Your task to perform on an android device: manage bookmarks in the chrome app Image 0: 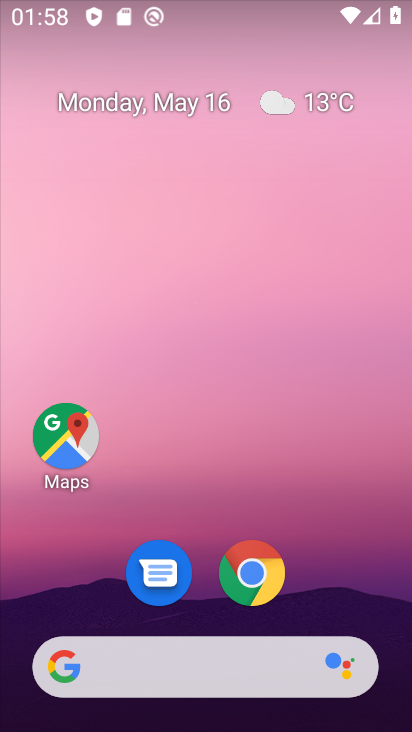
Step 0: click (264, 590)
Your task to perform on an android device: manage bookmarks in the chrome app Image 1: 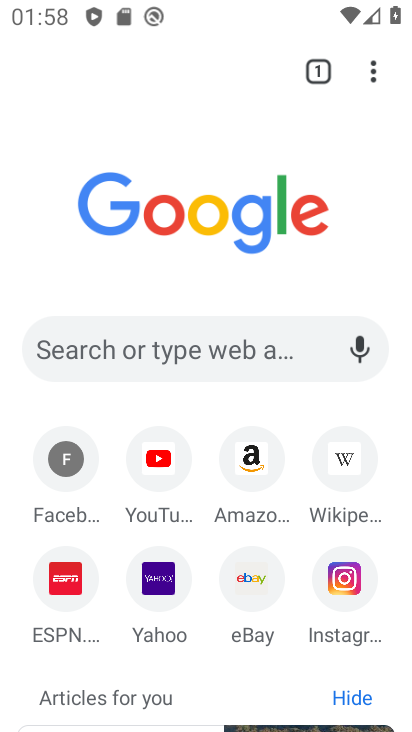
Step 1: click (386, 66)
Your task to perform on an android device: manage bookmarks in the chrome app Image 2: 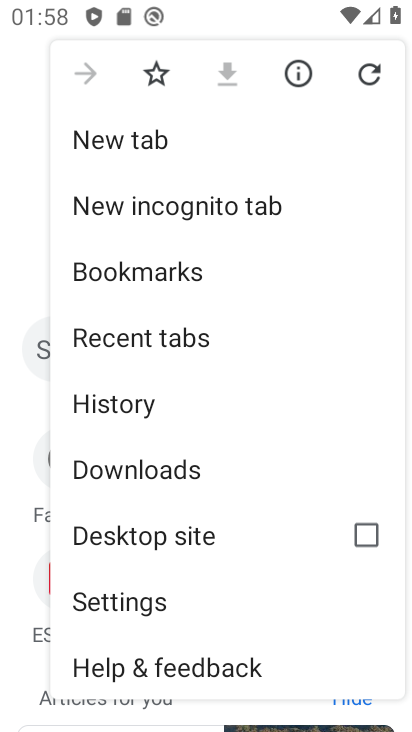
Step 2: click (111, 607)
Your task to perform on an android device: manage bookmarks in the chrome app Image 3: 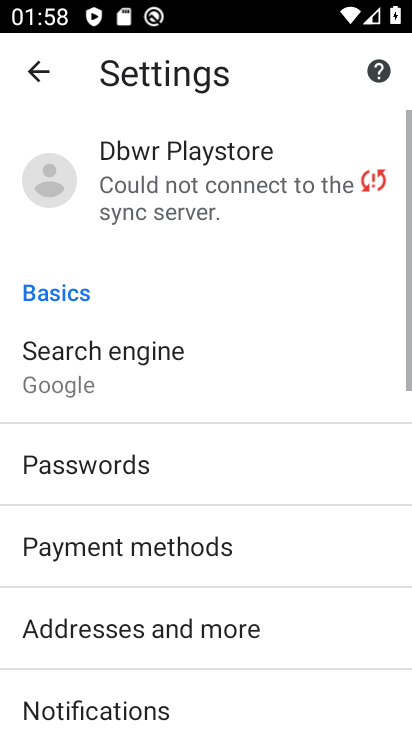
Step 3: drag from (111, 607) to (150, 300)
Your task to perform on an android device: manage bookmarks in the chrome app Image 4: 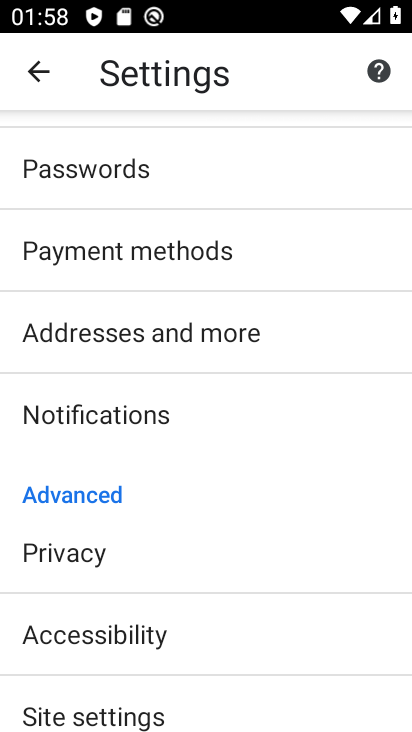
Step 4: drag from (167, 176) to (79, 625)
Your task to perform on an android device: manage bookmarks in the chrome app Image 5: 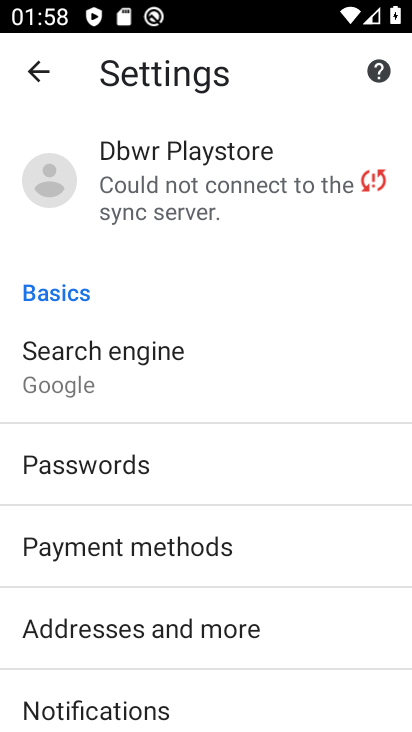
Step 5: drag from (79, 601) to (98, 386)
Your task to perform on an android device: manage bookmarks in the chrome app Image 6: 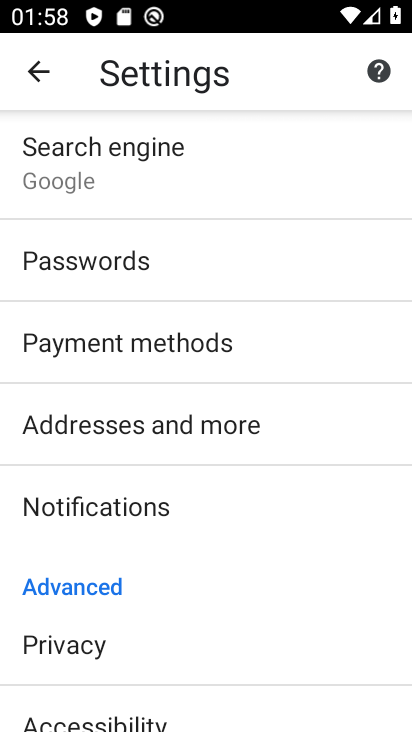
Step 6: drag from (235, 656) to (266, 268)
Your task to perform on an android device: manage bookmarks in the chrome app Image 7: 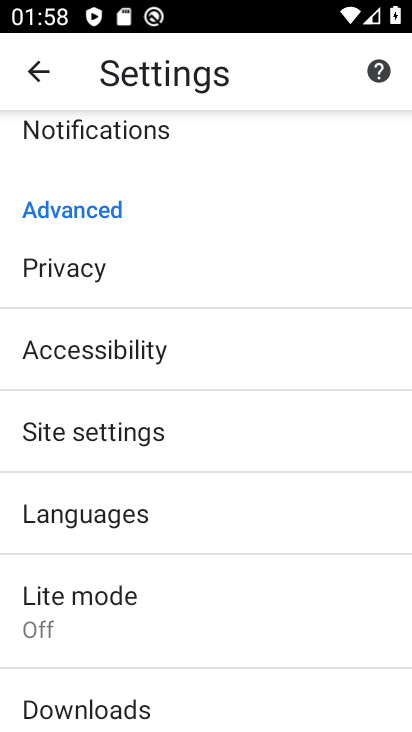
Step 7: drag from (212, 405) to (360, 570)
Your task to perform on an android device: manage bookmarks in the chrome app Image 8: 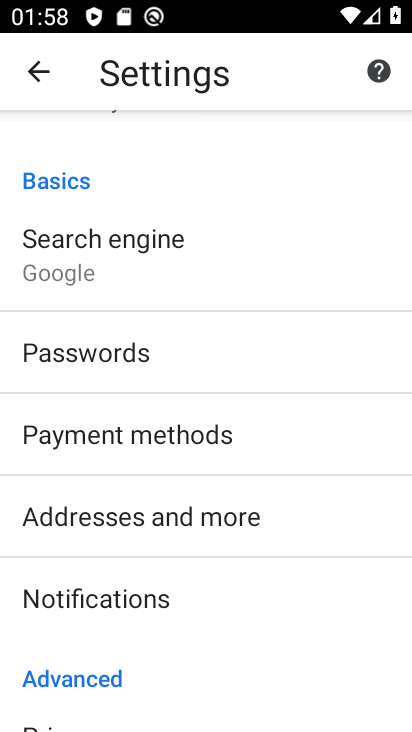
Step 8: drag from (240, 187) to (98, 725)
Your task to perform on an android device: manage bookmarks in the chrome app Image 9: 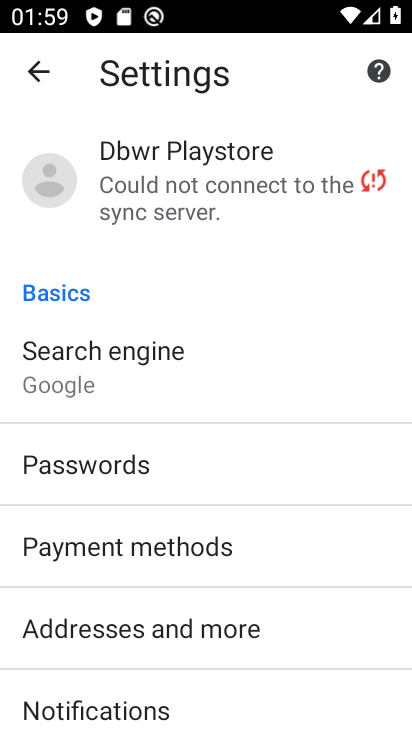
Step 9: drag from (296, 671) to (268, 284)
Your task to perform on an android device: manage bookmarks in the chrome app Image 10: 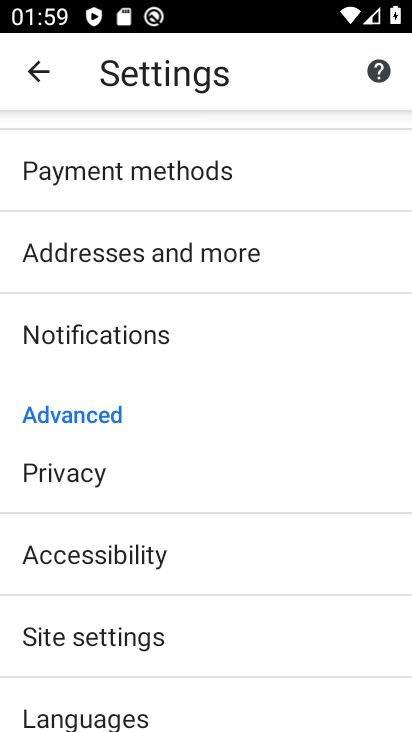
Step 10: drag from (184, 595) to (212, 290)
Your task to perform on an android device: manage bookmarks in the chrome app Image 11: 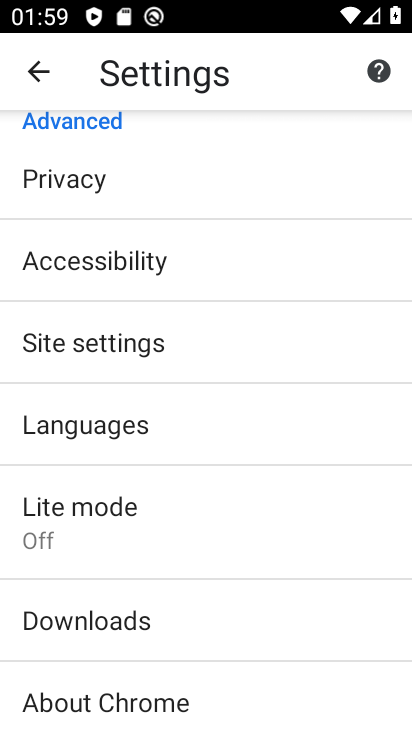
Step 11: drag from (120, 615) to (229, 7)
Your task to perform on an android device: manage bookmarks in the chrome app Image 12: 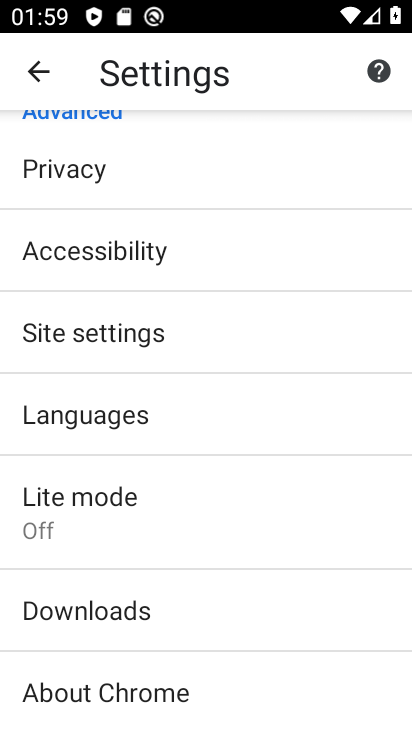
Step 12: drag from (208, 268) to (18, 694)
Your task to perform on an android device: manage bookmarks in the chrome app Image 13: 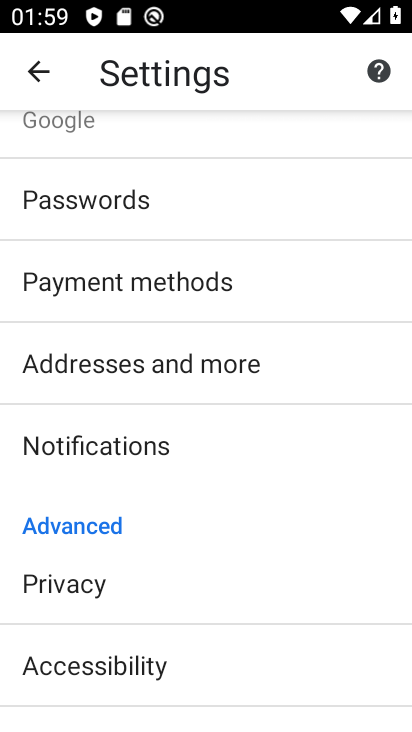
Step 13: drag from (177, 204) to (102, 676)
Your task to perform on an android device: manage bookmarks in the chrome app Image 14: 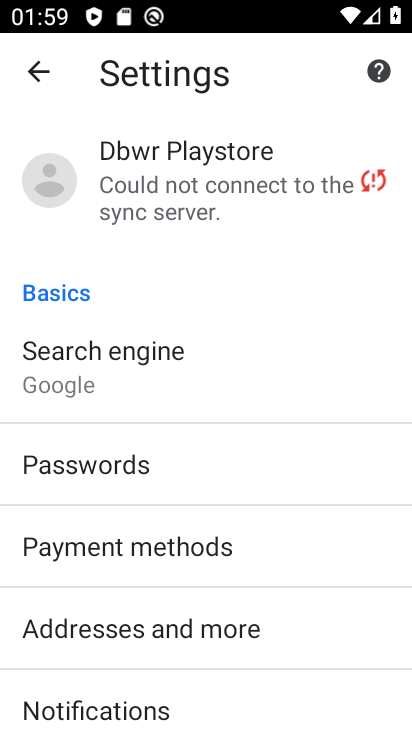
Step 14: drag from (190, 671) to (278, 372)
Your task to perform on an android device: manage bookmarks in the chrome app Image 15: 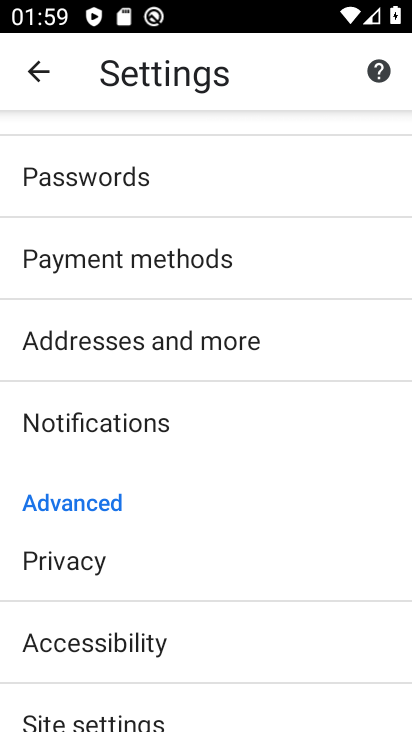
Step 15: drag from (197, 592) to (241, 163)
Your task to perform on an android device: manage bookmarks in the chrome app Image 16: 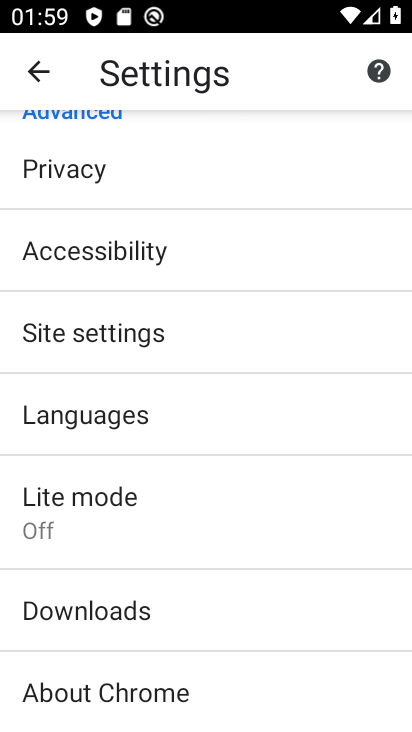
Step 16: drag from (151, 194) to (108, 640)
Your task to perform on an android device: manage bookmarks in the chrome app Image 17: 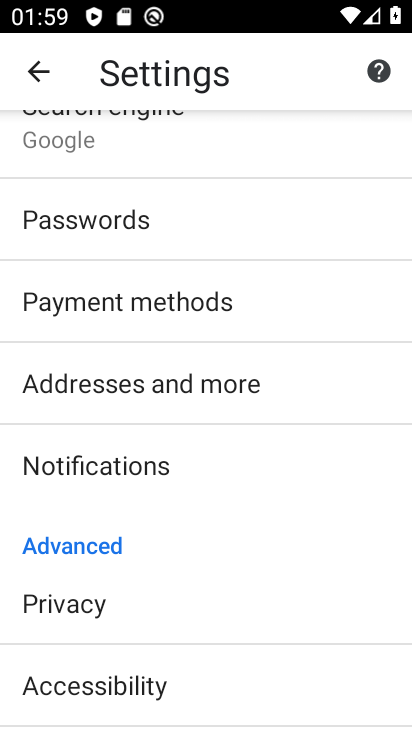
Step 17: click (249, 180)
Your task to perform on an android device: manage bookmarks in the chrome app Image 18: 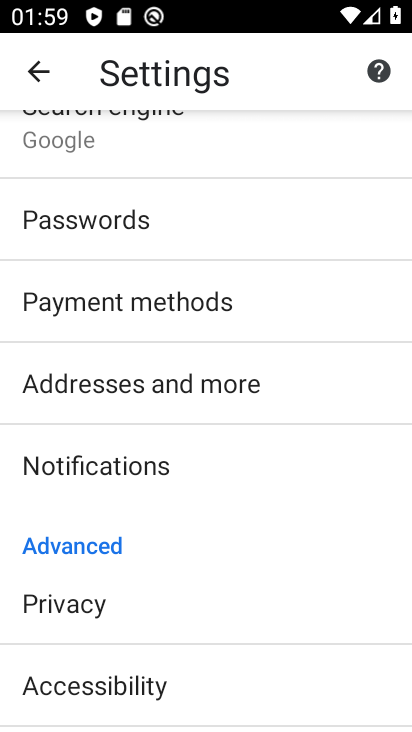
Step 18: drag from (249, 180) to (144, 651)
Your task to perform on an android device: manage bookmarks in the chrome app Image 19: 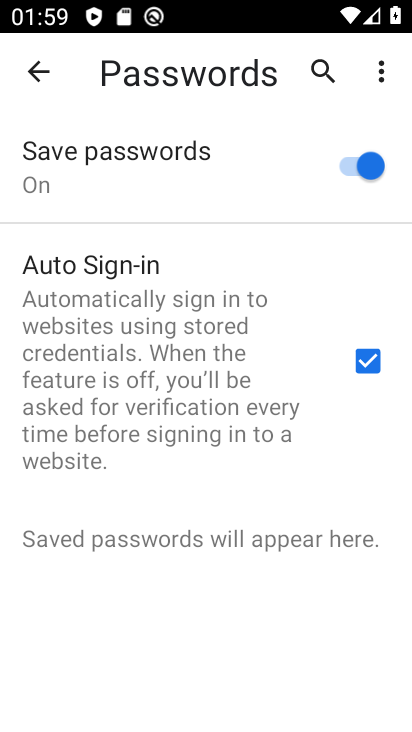
Step 19: click (22, 70)
Your task to perform on an android device: manage bookmarks in the chrome app Image 20: 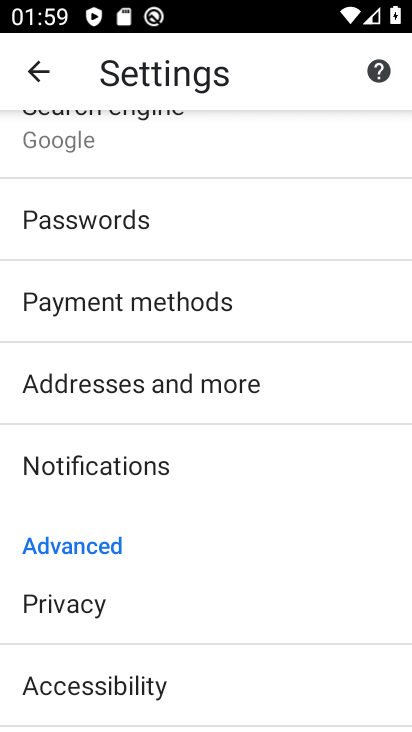
Step 20: drag from (254, 307) to (212, 707)
Your task to perform on an android device: manage bookmarks in the chrome app Image 21: 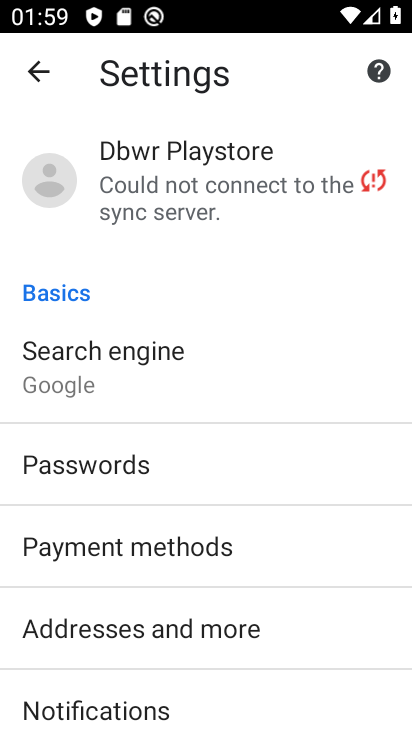
Step 21: drag from (212, 707) to (256, 199)
Your task to perform on an android device: manage bookmarks in the chrome app Image 22: 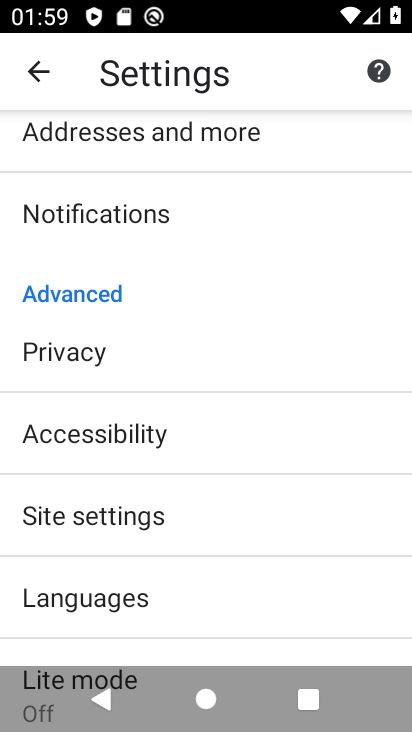
Step 22: click (35, 82)
Your task to perform on an android device: manage bookmarks in the chrome app Image 23: 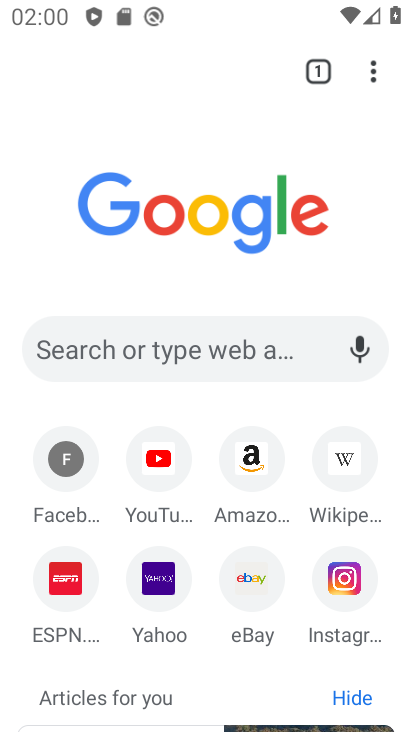
Step 23: click (383, 87)
Your task to perform on an android device: manage bookmarks in the chrome app Image 24: 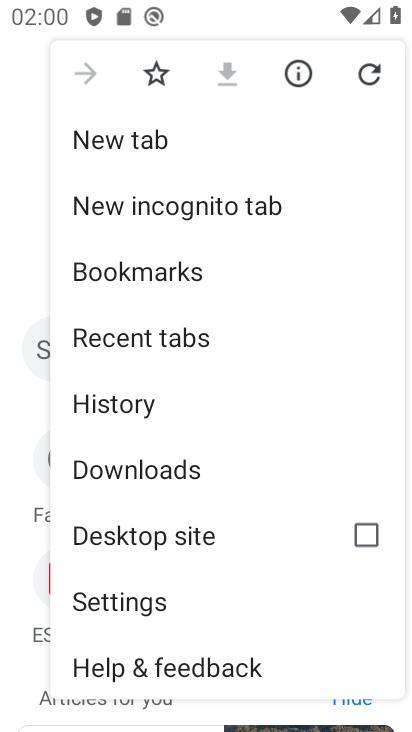
Step 24: click (156, 266)
Your task to perform on an android device: manage bookmarks in the chrome app Image 25: 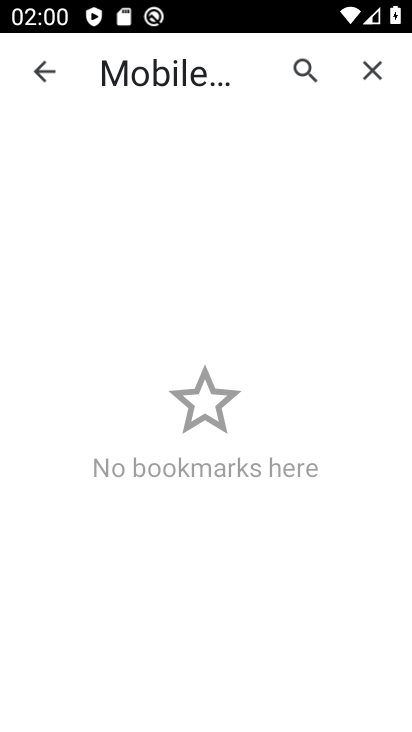
Step 25: task complete